Your task to perform on an android device: Open calendar and show me the first week of next month Image 0: 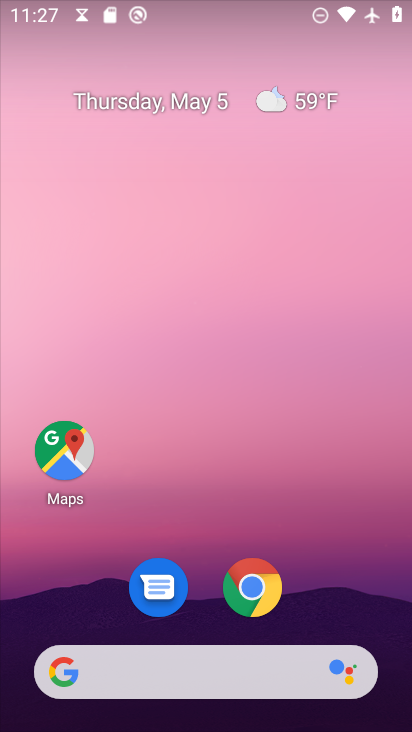
Step 0: drag from (315, 530) to (238, 46)
Your task to perform on an android device: Open calendar and show me the first week of next month Image 1: 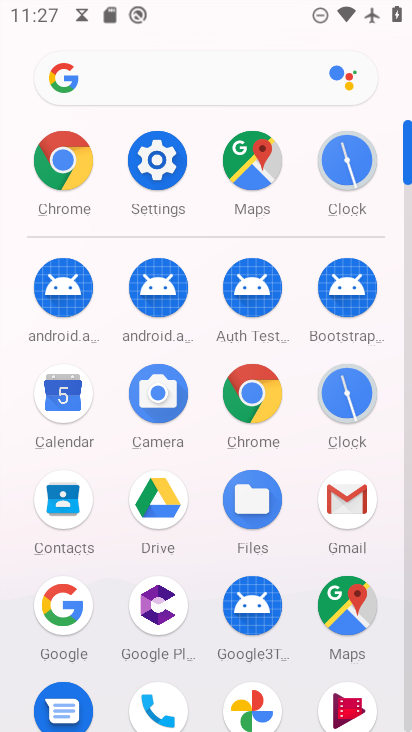
Step 1: drag from (7, 631) to (21, 304)
Your task to perform on an android device: Open calendar and show me the first week of next month Image 2: 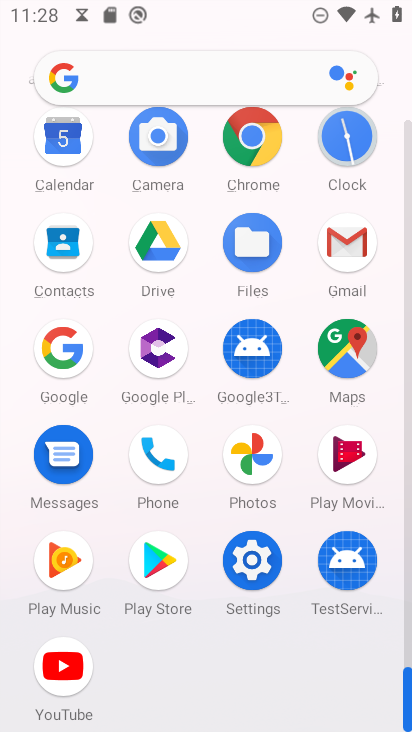
Step 2: click (62, 137)
Your task to perform on an android device: Open calendar and show me the first week of next month Image 3: 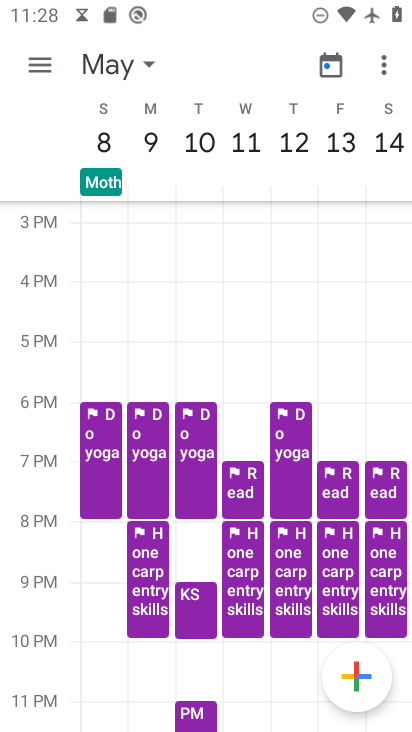
Step 3: click (332, 70)
Your task to perform on an android device: Open calendar and show me the first week of next month Image 4: 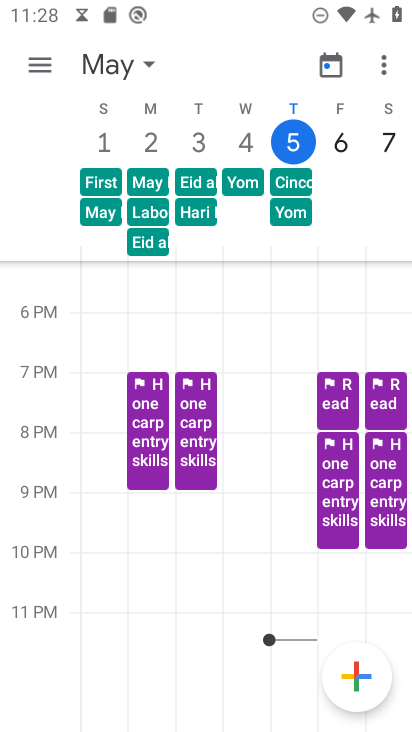
Step 4: click (128, 66)
Your task to perform on an android device: Open calendar and show me the first week of next month Image 5: 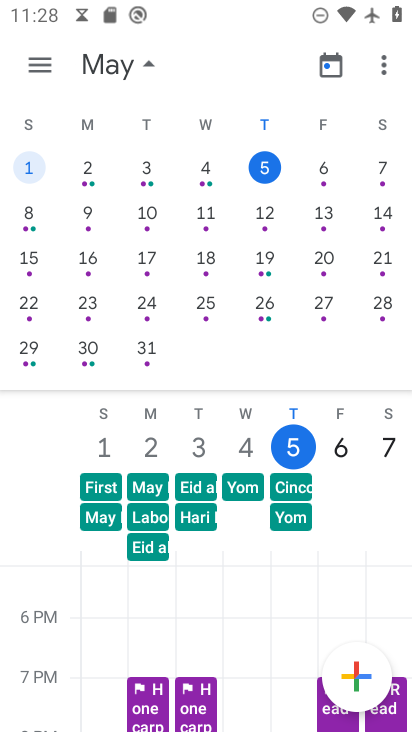
Step 5: drag from (365, 272) to (8, 233)
Your task to perform on an android device: Open calendar and show me the first week of next month Image 6: 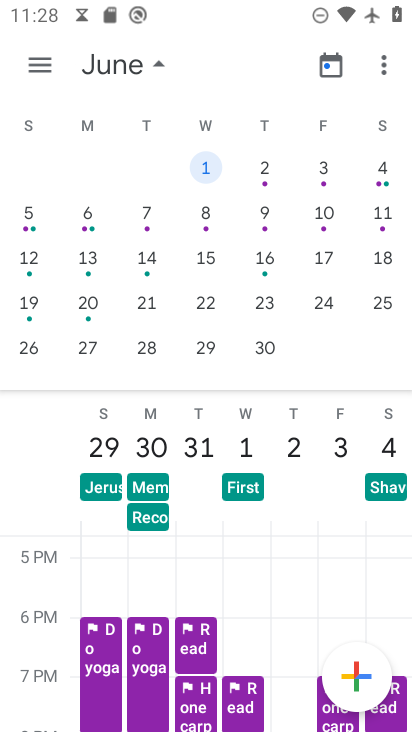
Step 6: click (35, 50)
Your task to perform on an android device: Open calendar and show me the first week of next month Image 7: 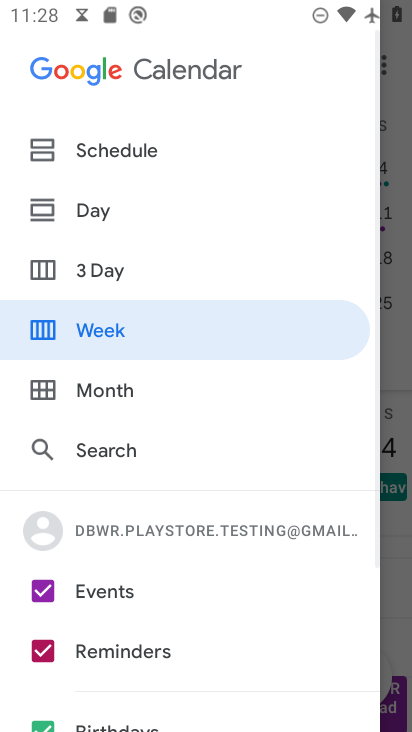
Step 7: click (104, 342)
Your task to perform on an android device: Open calendar and show me the first week of next month Image 8: 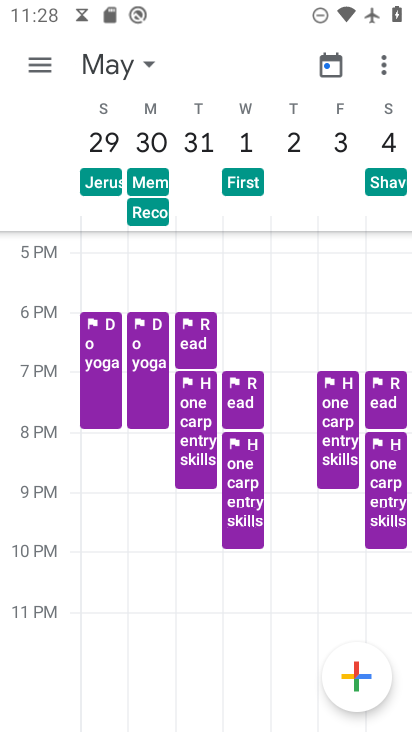
Step 8: task complete